Your task to perform on an android device: Empty the shopping cart on newegg.com. Image 0: 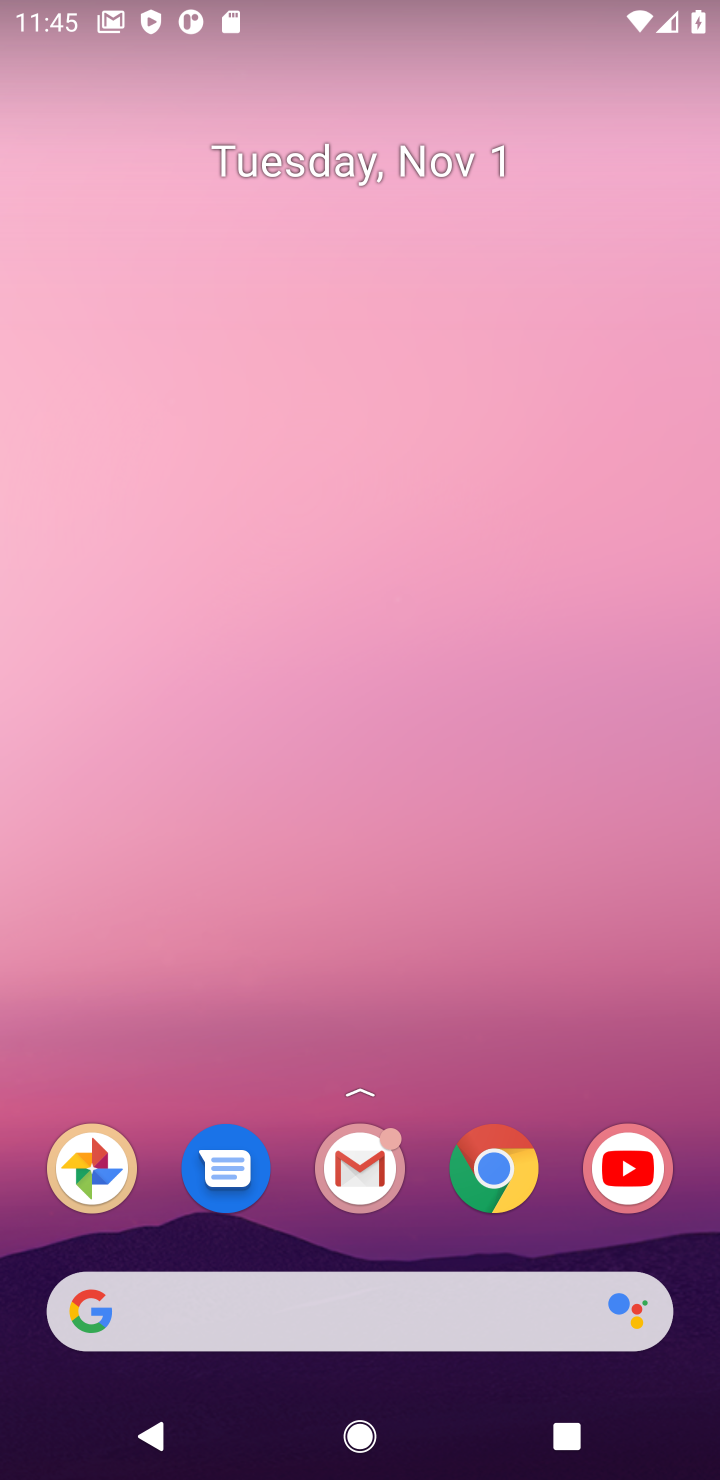
Step 0: click (510, 1177)
Your task to perform on an android device: Empty the shopping cart on newegg.com. Image 1: 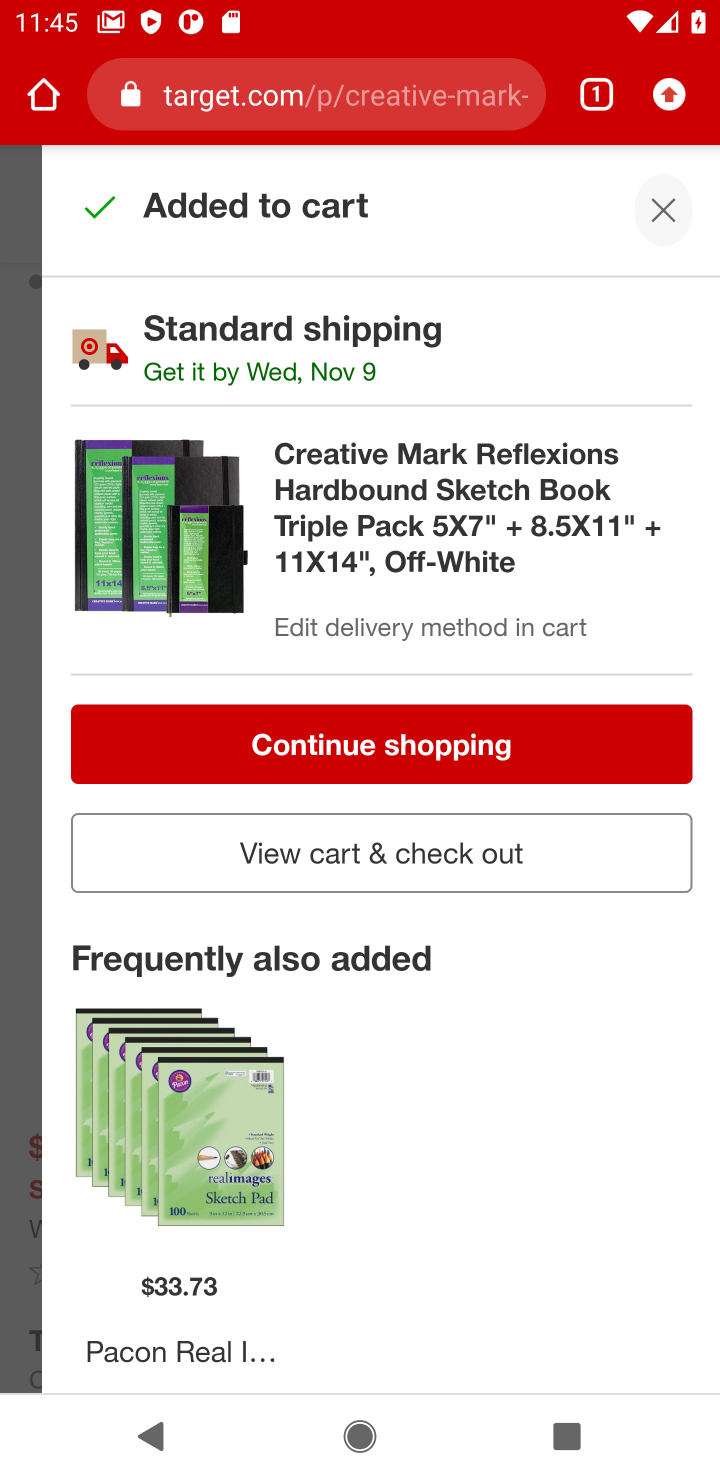
Step 1: click (413, 77)
Your task to perform on an android device: Empty the shopping cart on newegg.com. Image 2: 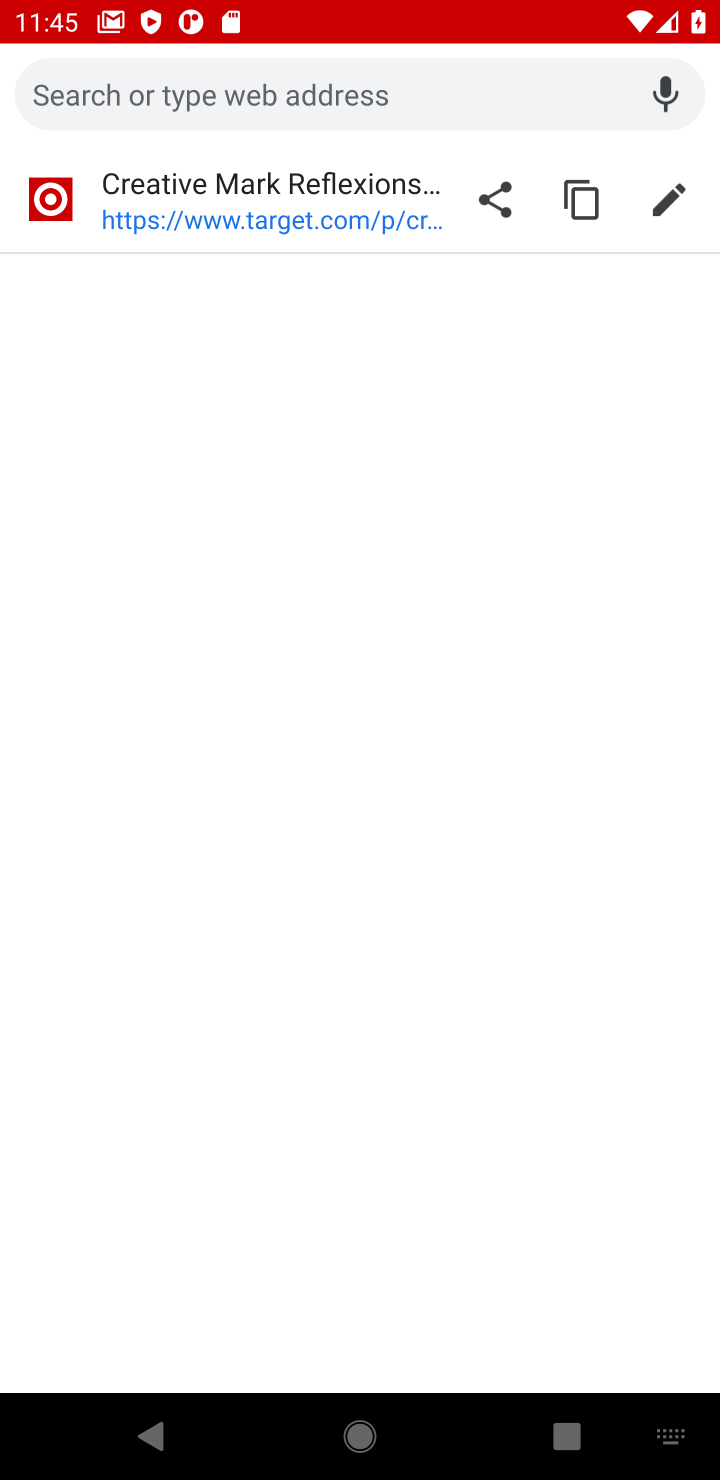
Step 2: type "newegg"
Your task to perform on an android device: Empty the shopping cart on newegg.com. Image 3: 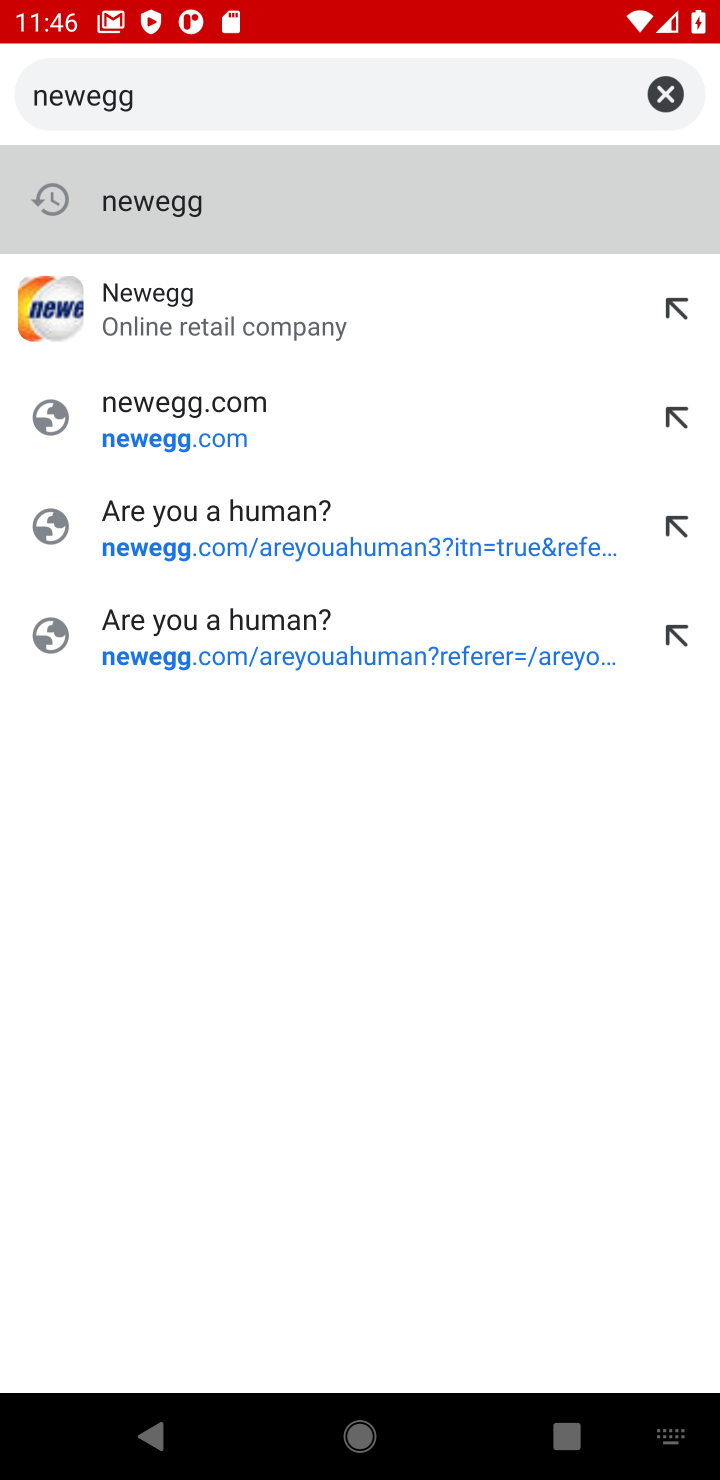
Step 3: click (258, 412)
Your task to perform on an android device: Empty the shopping cart on newegg.com. Image 4: 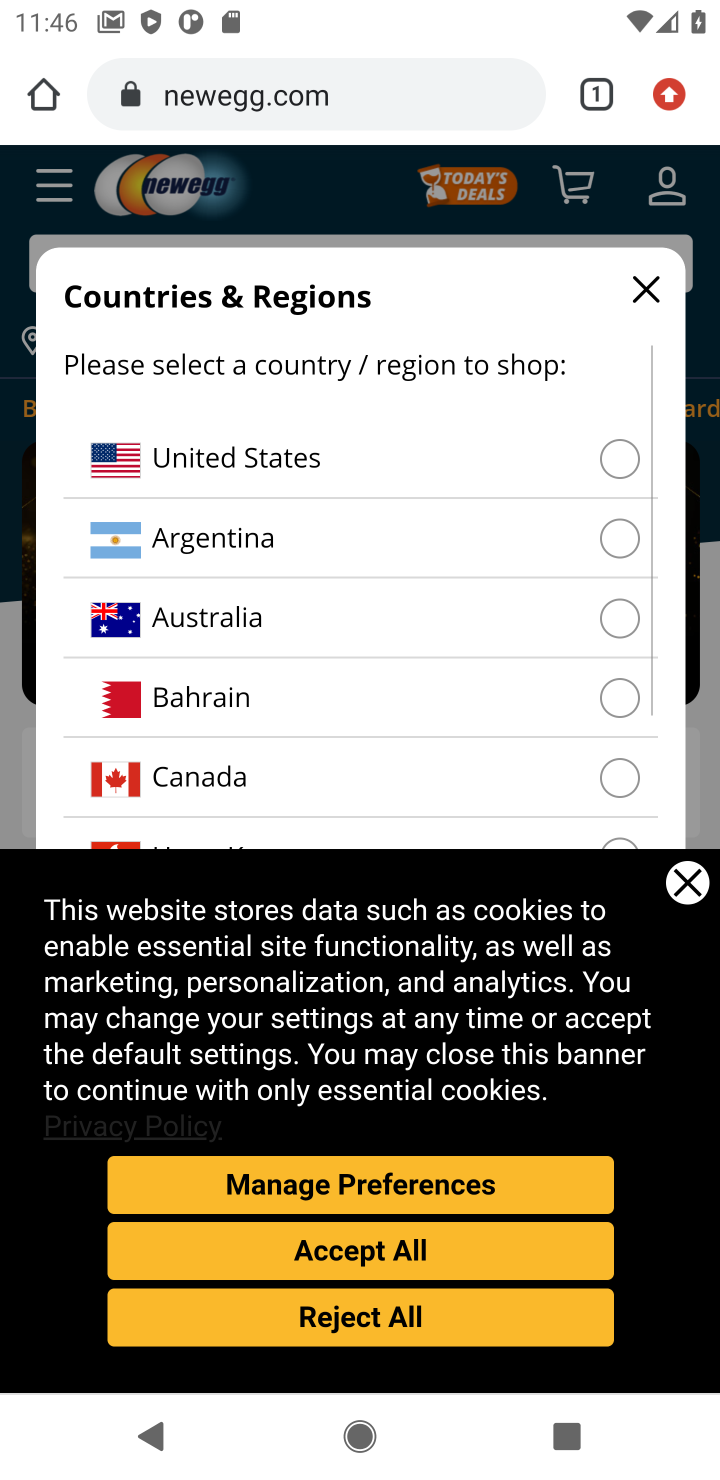
Step 4: click (618, 446)
Your task to perform on an android device: Empty the shopping cart on newegg.com. Image 5: 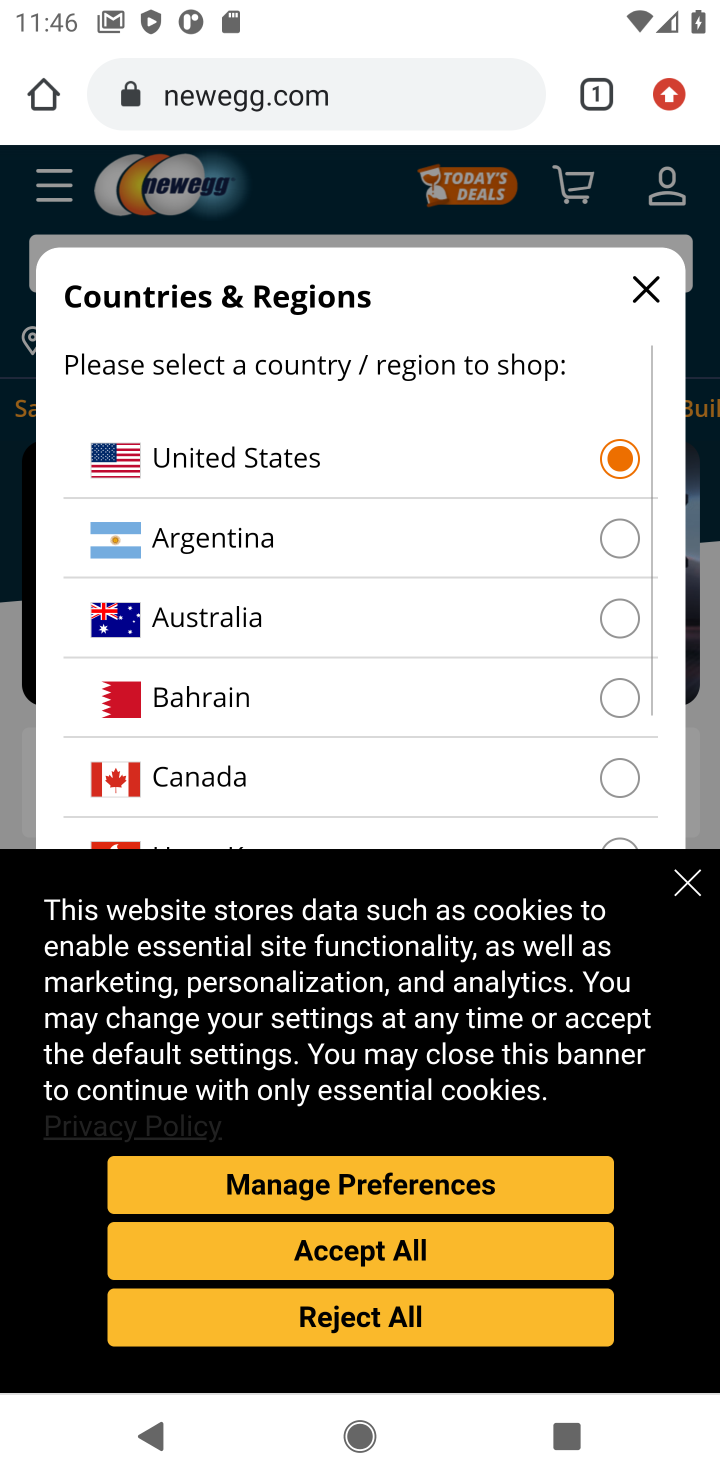
Step 5: click (658, 274)
Your task to perform on an android device: Empty the shopping cart on newegg.com. Image 6: 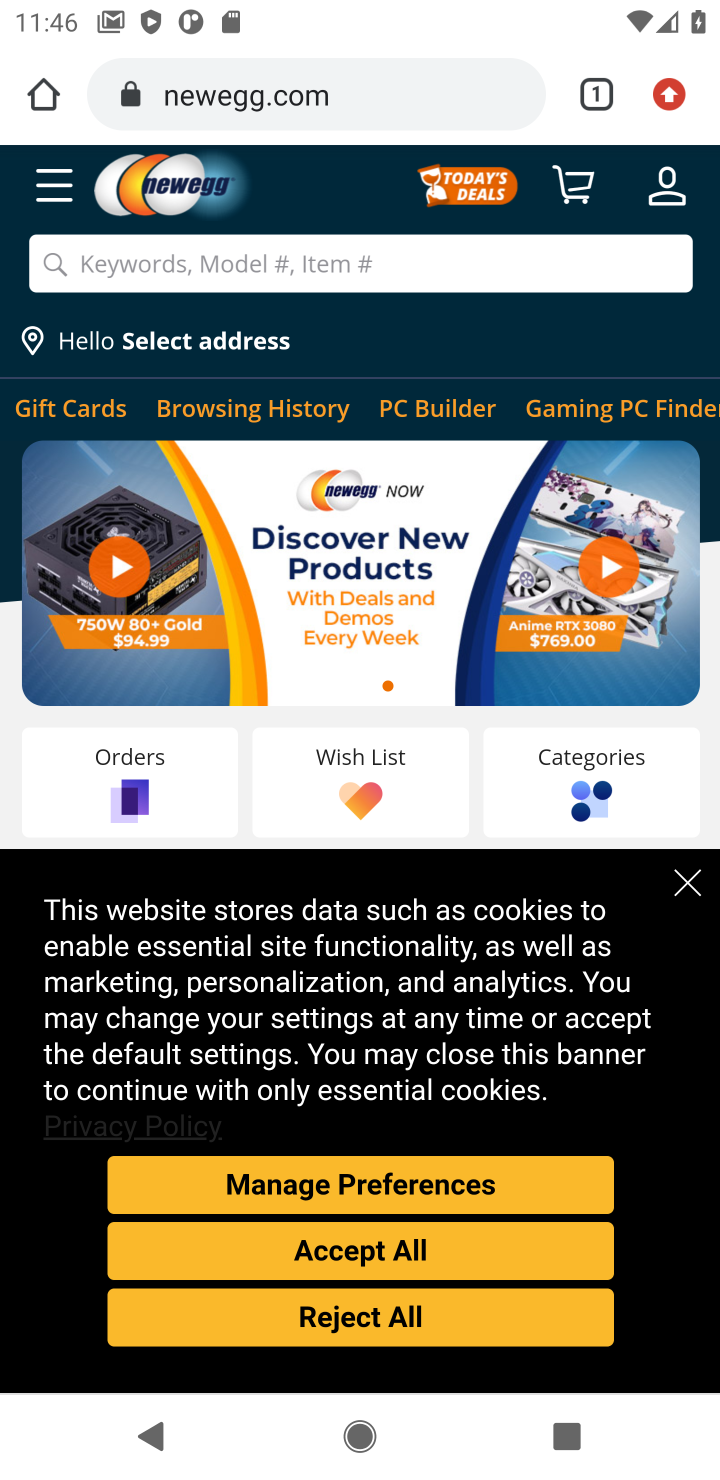
Step 6: click (414, 273)
Your task to perform on an android device: Empty the shopping cart on newegg.com. Image 7: 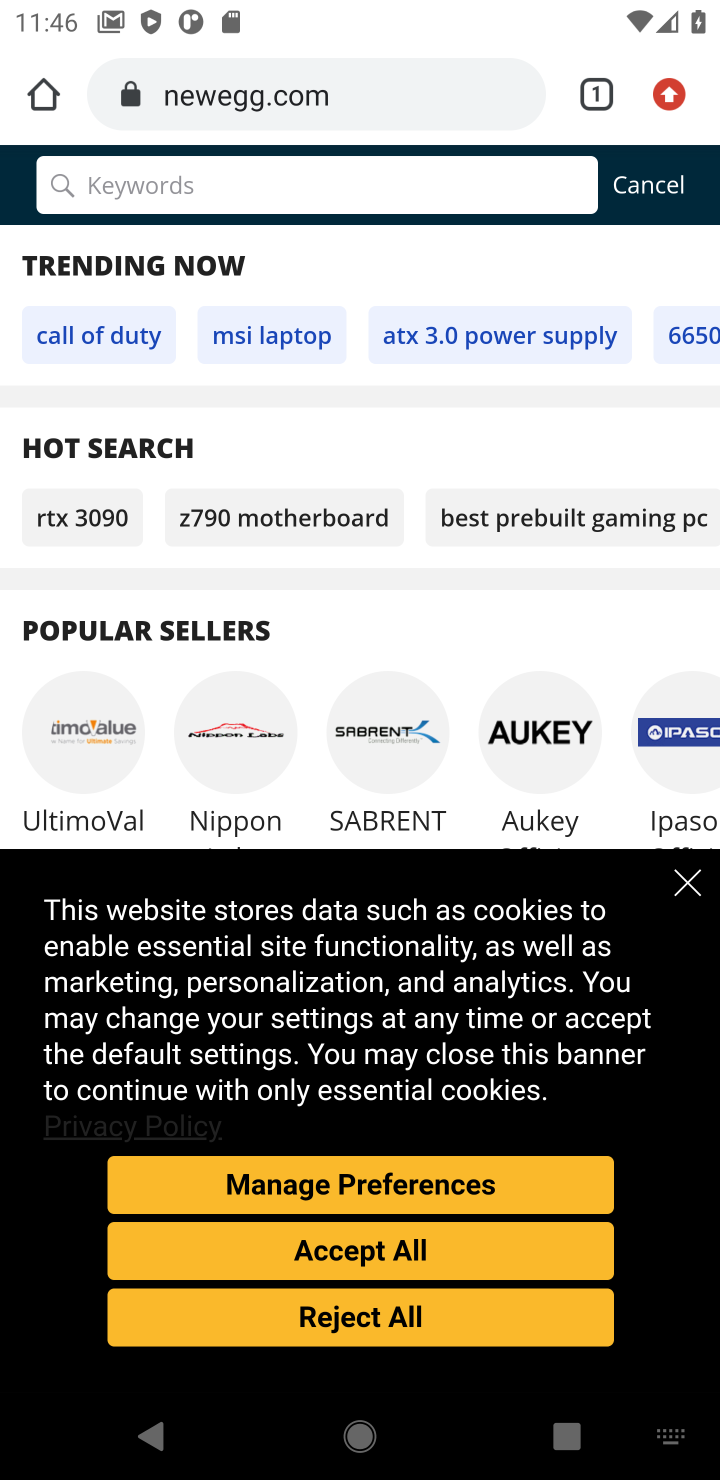
Step 7: click (670, 179)
Your task to perform on an android device: Empty the shopping cart on newegg.com. Image 8: 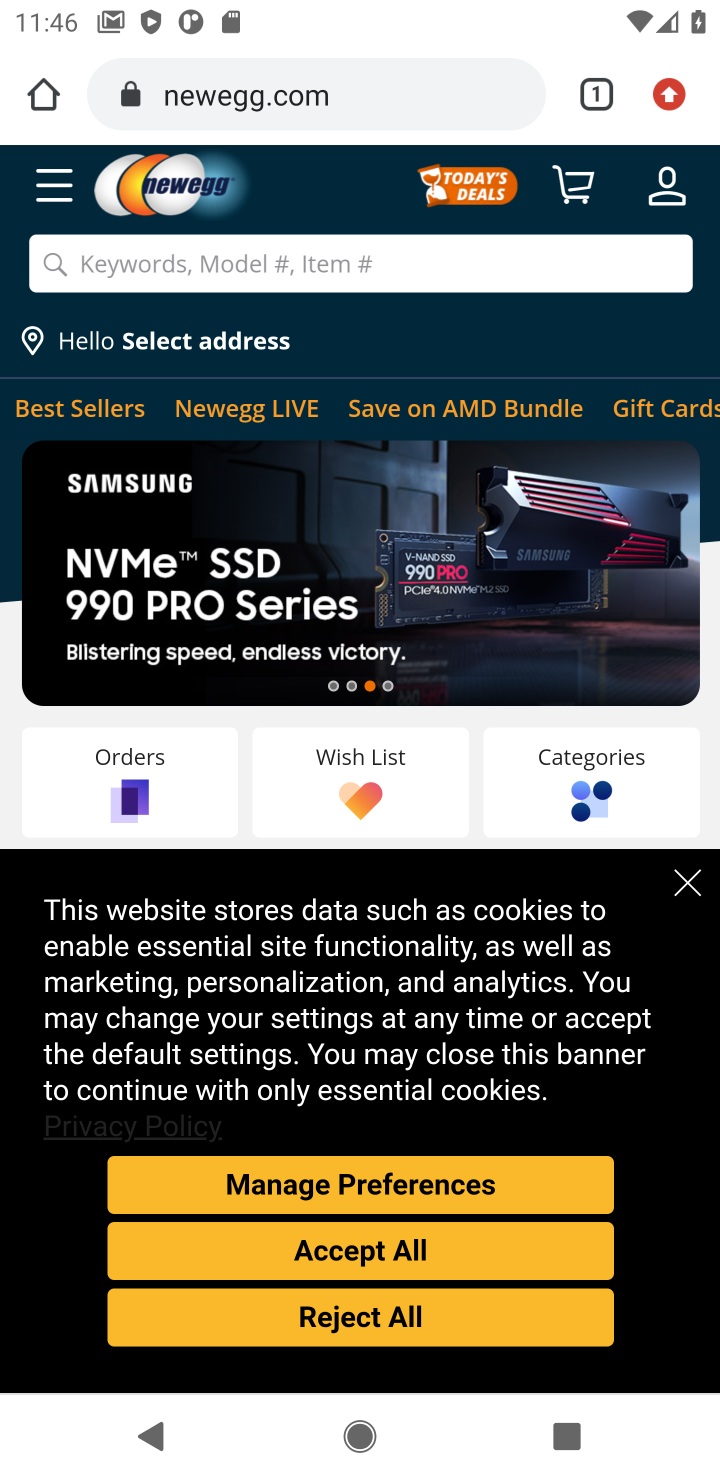
Step 8: click (659, 188)
Your task to perform on an android device: Empty the shopping cart on newegg.com. Image 9: 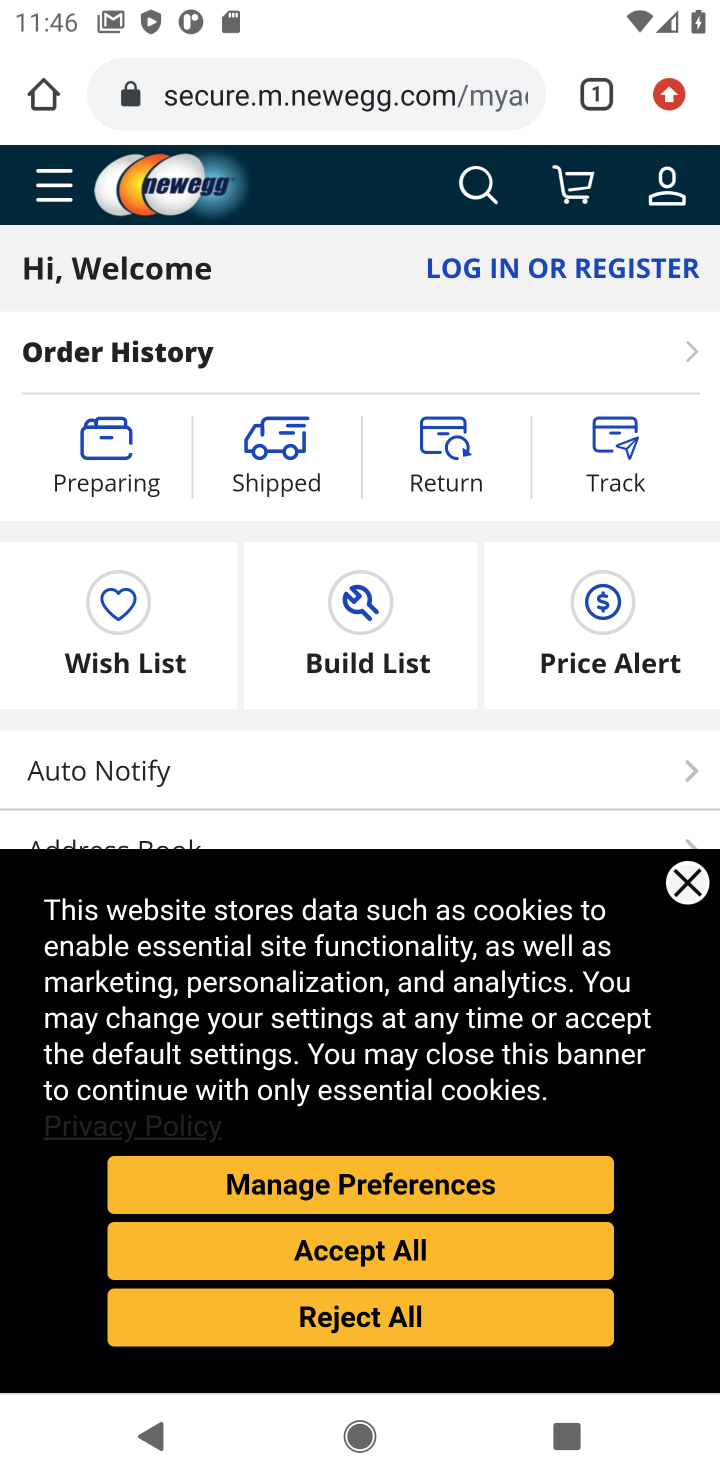
Step 9: task complete